Your task to perform on an android device: Go to battery settings Image 0: 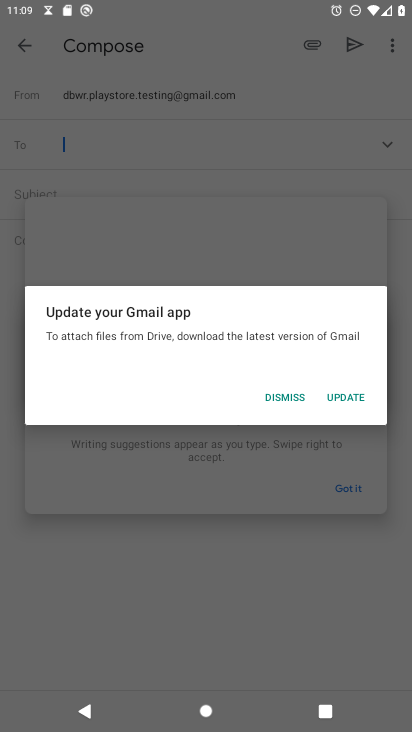
Step 0: press back button
Your task to perform on an android device: Go to battery settings Image 1: 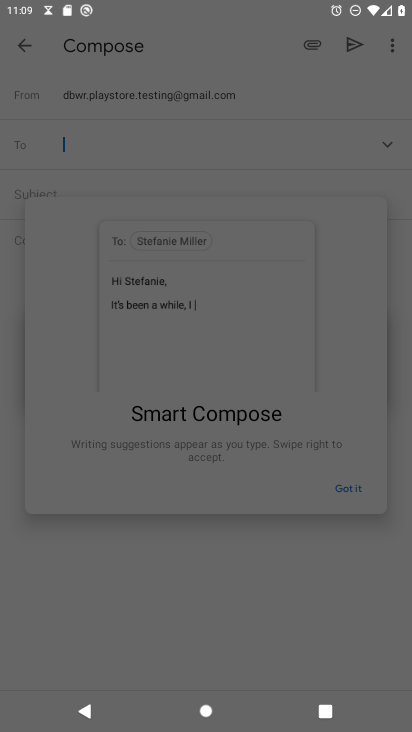
Step 1: press home button
Your task to perform on an android device: Go to battery settings Image 2: 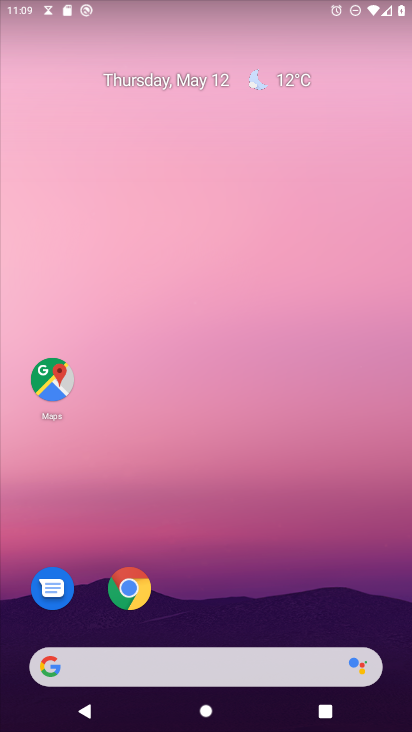
Step 2: drag from (243, 587) to (295, 192)
Your task to perform on an android device: Go to battery settings Image 3: 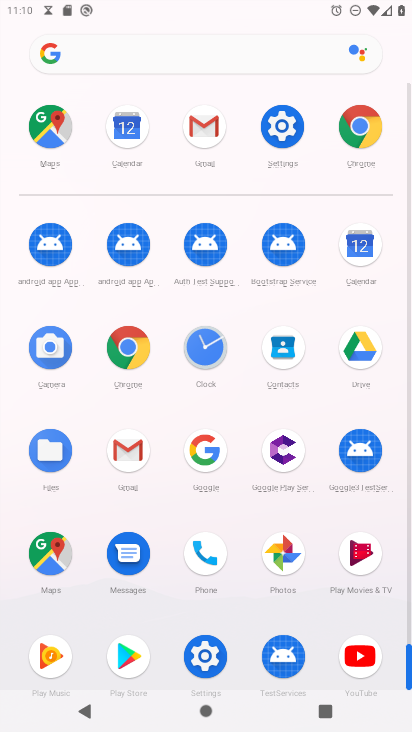
Step 3: click (205, 653)
Your task to perform on an android device: Go to battery settings Image 4: 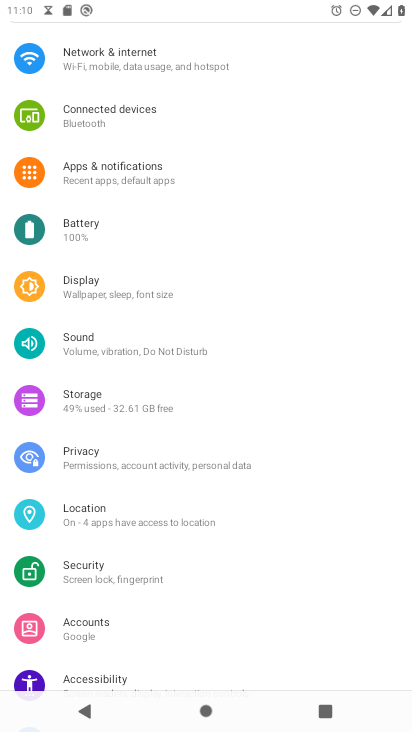
Step 4: click (91, 233)
Your task to perform on an android device: Go to battery settings Image 5: 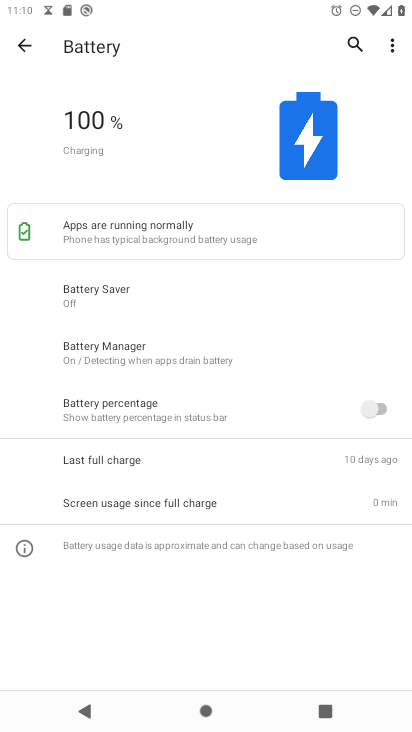
Step 5: task complete